Your task to perform on an android device: Open internet settings Image 0: 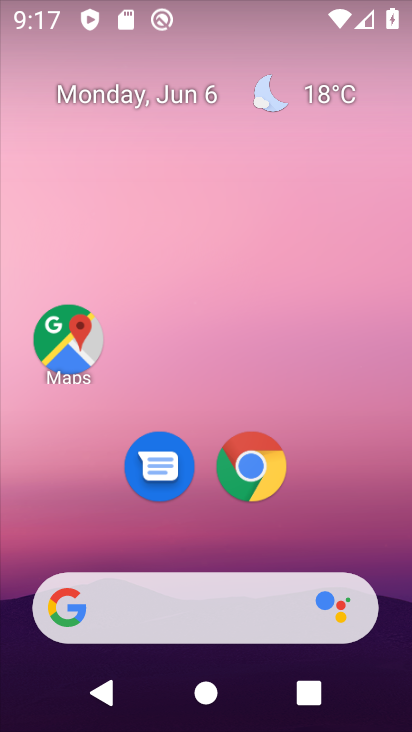
Step 0: drag from (191, 540) to (267, 4)
Your task to perform on an android device: Open internet settings Image 1: 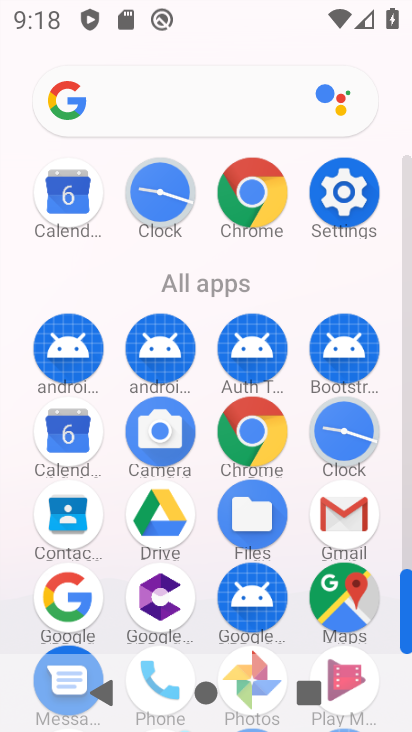
Step 1: click (352, 196)
Your task to perform on an android device: Open internet settings Image 2: 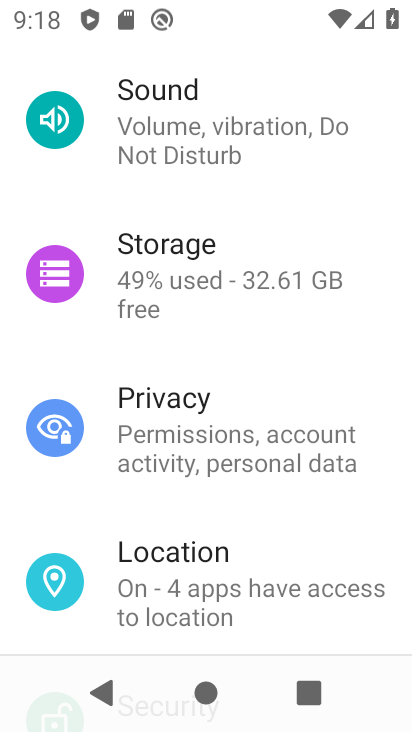
Step 2: drag from (267, 221) to (272, 649)
Your task to perform on an android device: Open internet settings Image 3: 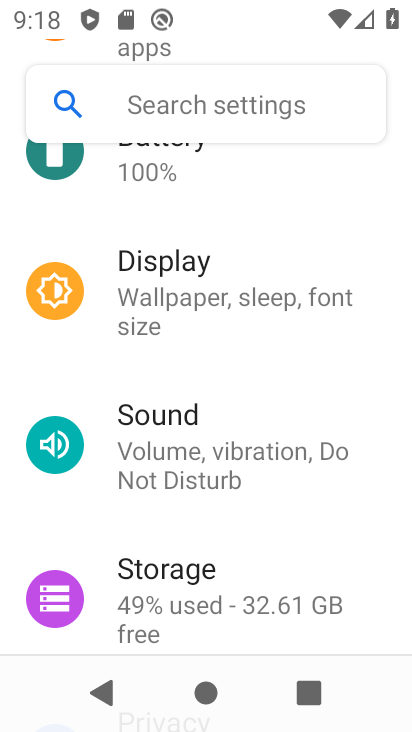
Step 3: drag from (176, 237) to (206, 502)
Your task to perform on an android device: Open internet settings Image 4: 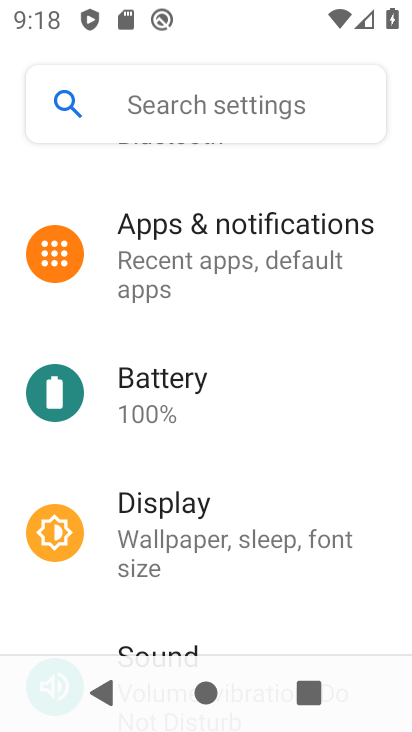
Step 4: drag from (147, 364) to (154, 540)
Your task to perform on an android device: Open internet settings Image 5: 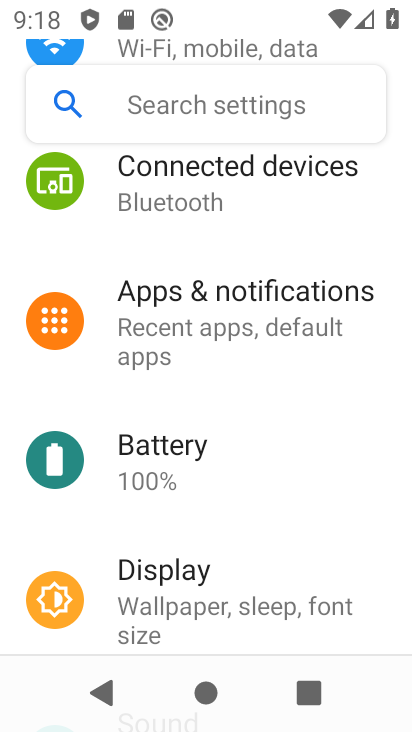
Step 5: drag from (222, 316) to (232, 630)
Your task to perform on an android device: Open internet settings Image 6: 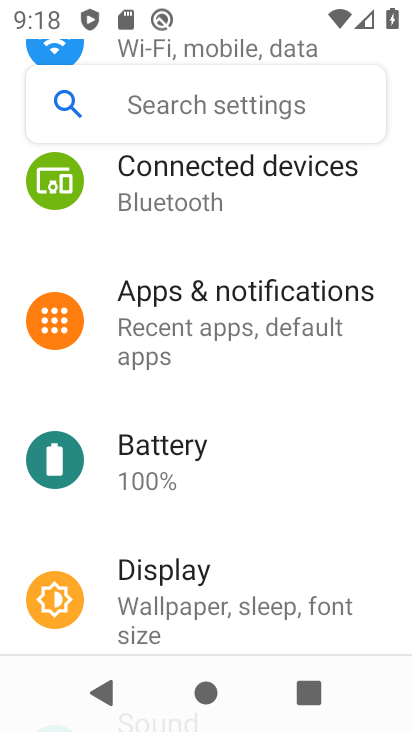
Step 6: drag from (155, 243) to (129, 593)
Your task to perform on an android device: Open internet settings Image 7: 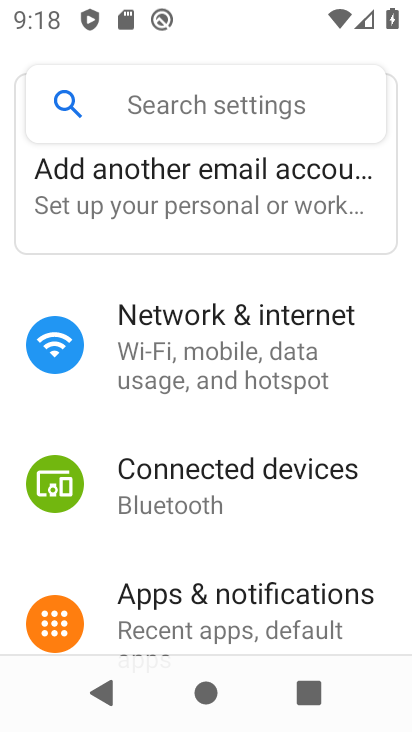
Step 7: click (170, 367)
Your task to perform on an android device: Open internet settings Image 8: 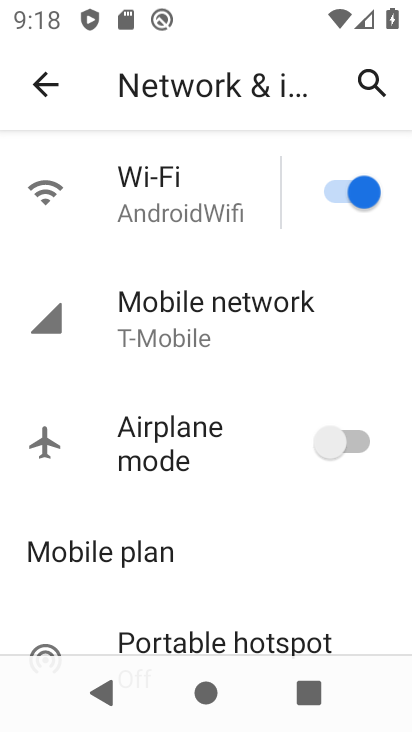
Step 8: task complete